Your task to perform on an android device: Search for pizza restaurants on Maps Image 0: 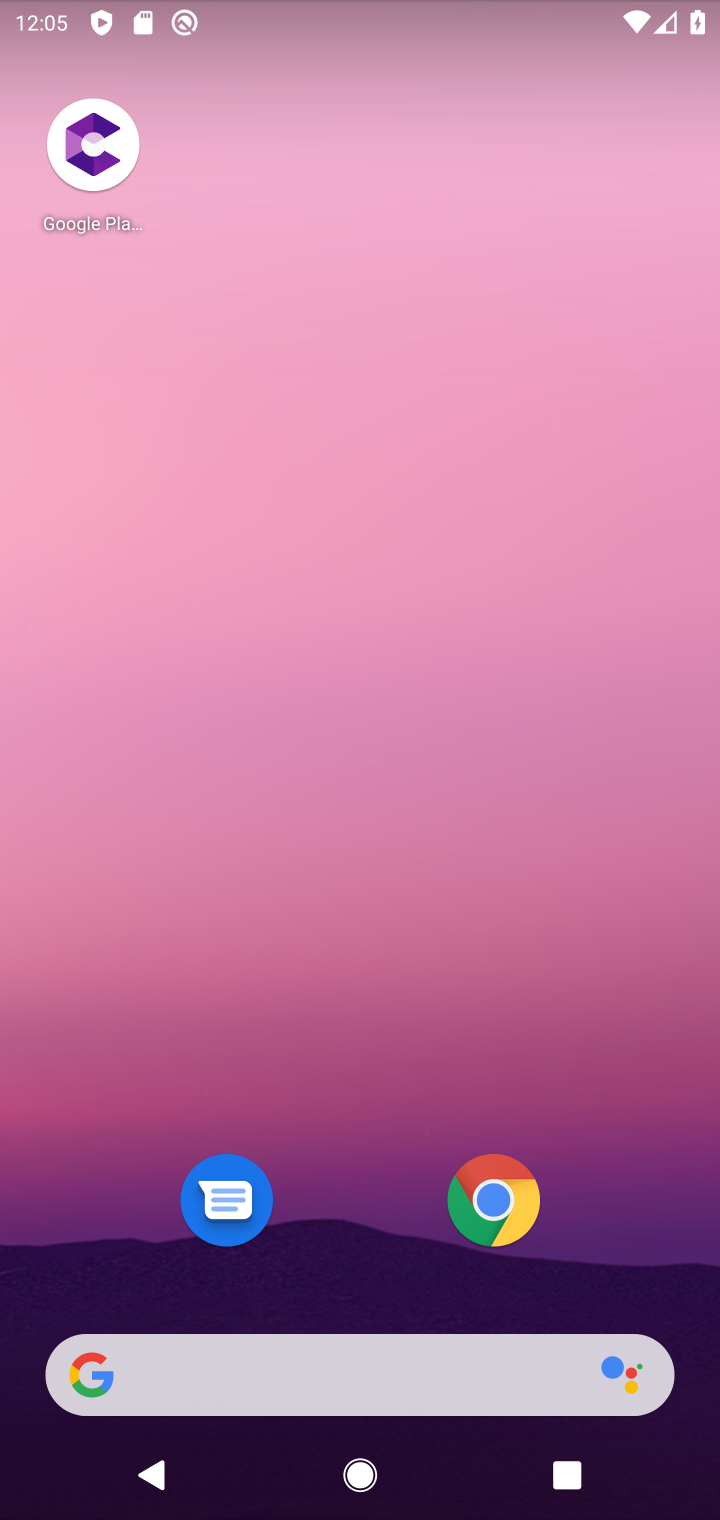
Step 0: drag from (351, 1250) to (340, 19)
Your task to perform on an android device: Search for pizza restaurants on Maps Image 1: 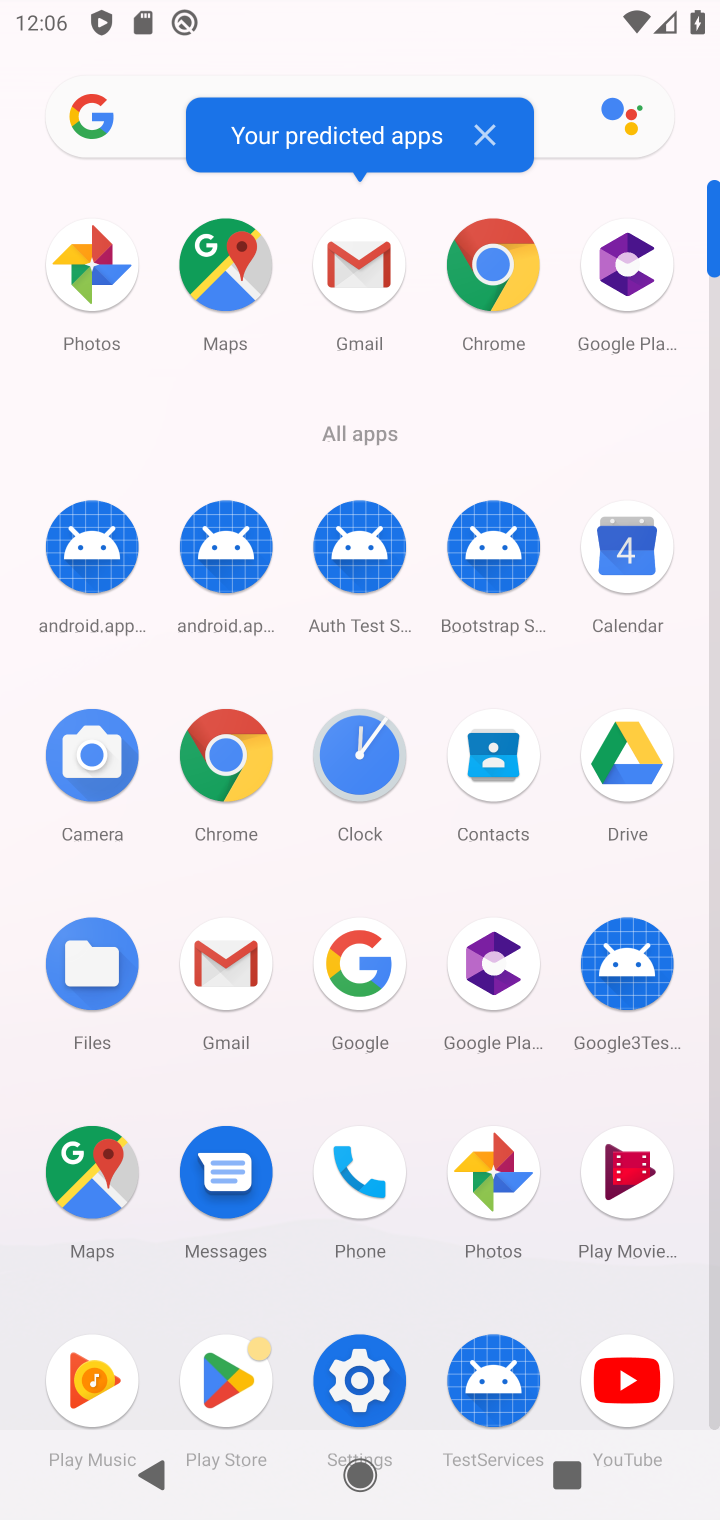
Step 1: drag from (417, 683) to (359, 0)
Your task to perform on an android device: Search for pizza restaurants on Maps Image 2: 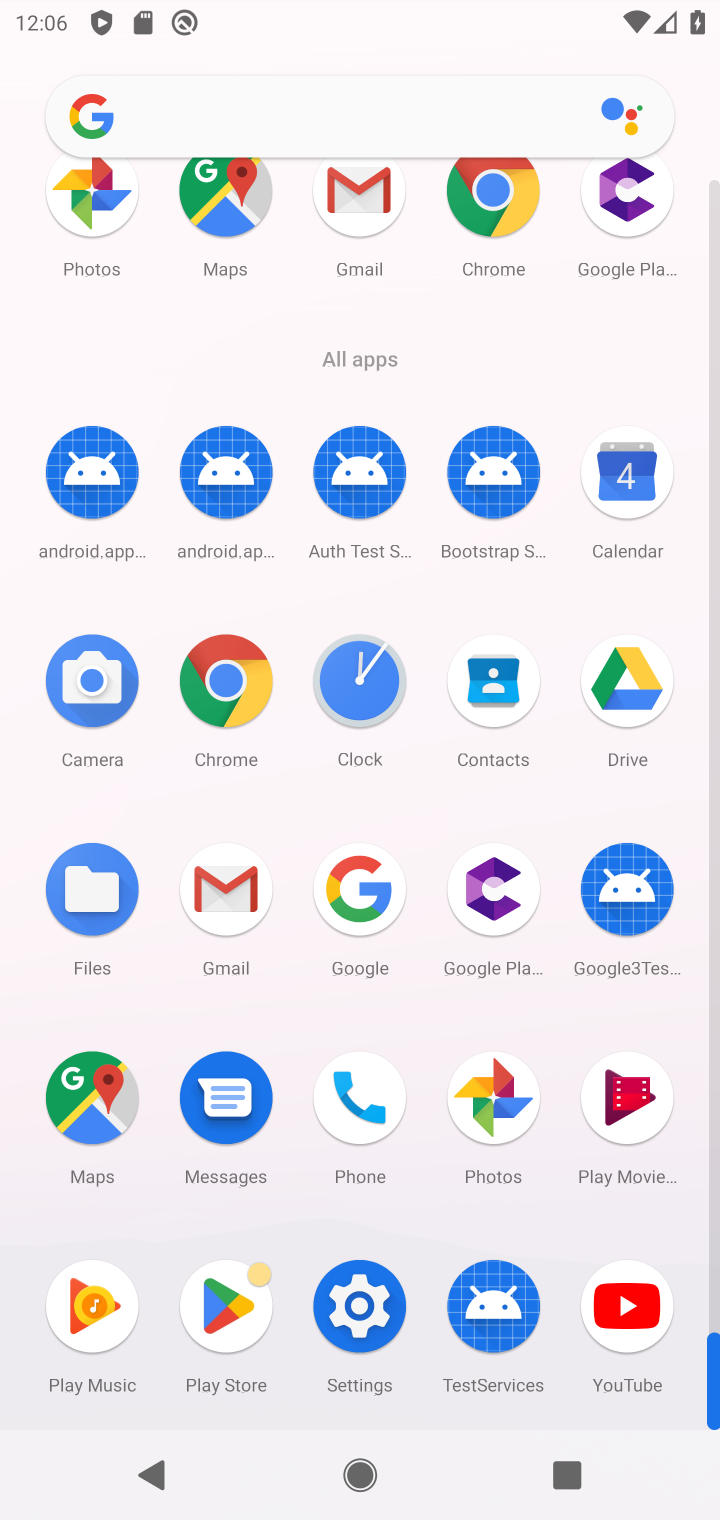
Step 2: click (76, 1086)
Your task to perform on an android device: Search for pizza restaurants on Maps Image 3: 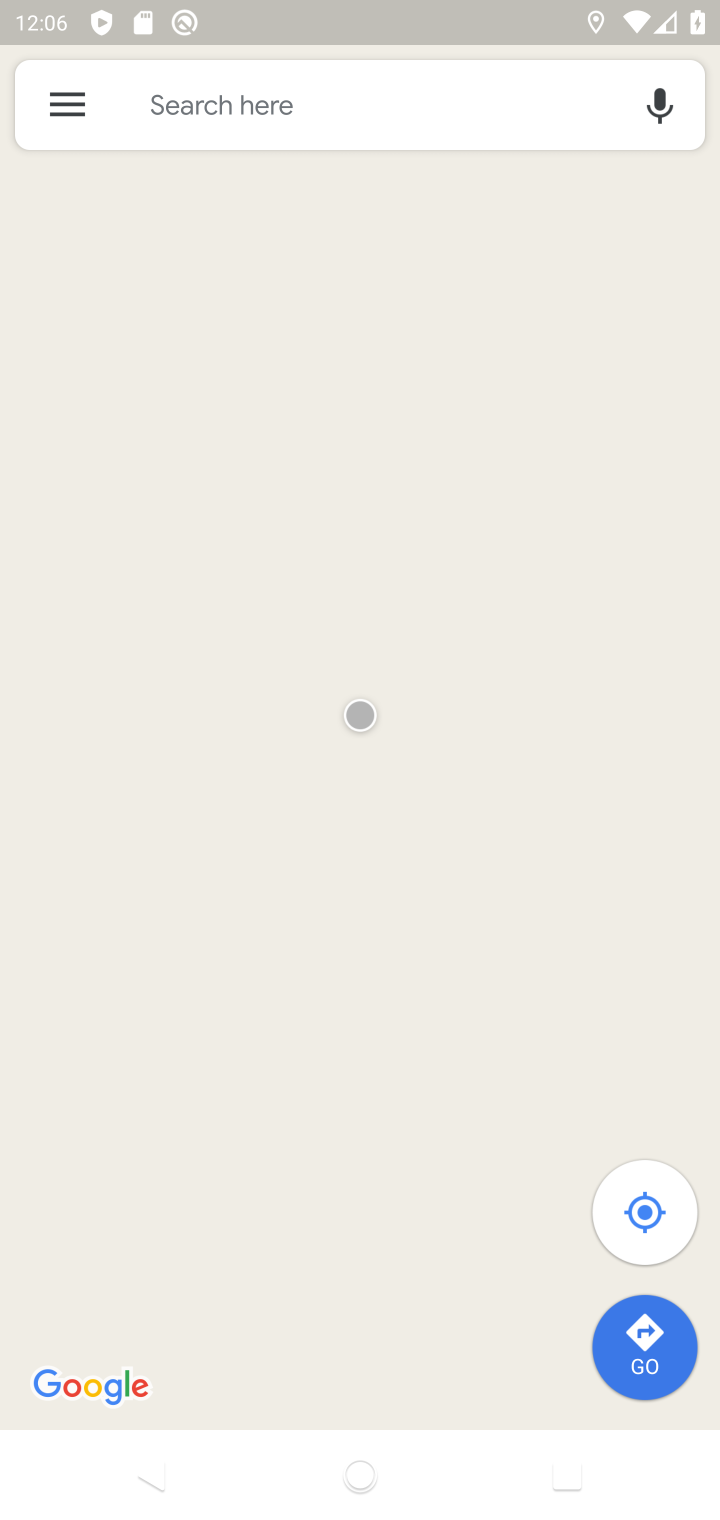
Step 3: click (304, 101)
Your task to perform on an android device: Search for pizza restaurants on Maps Image 4: 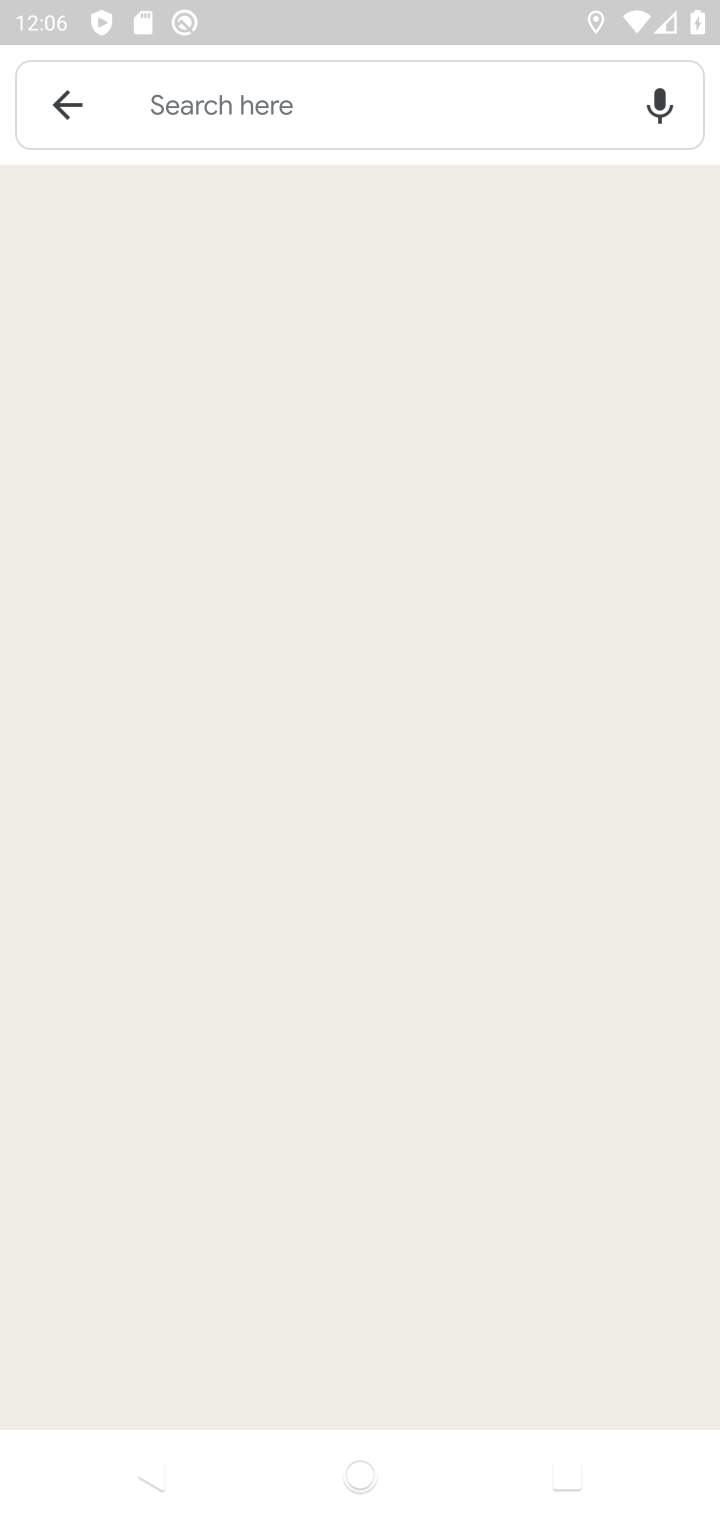
Step 4: click (289, 101)
Your task to perform on an android device: Search for pizza restaurants on Maps Image 5: 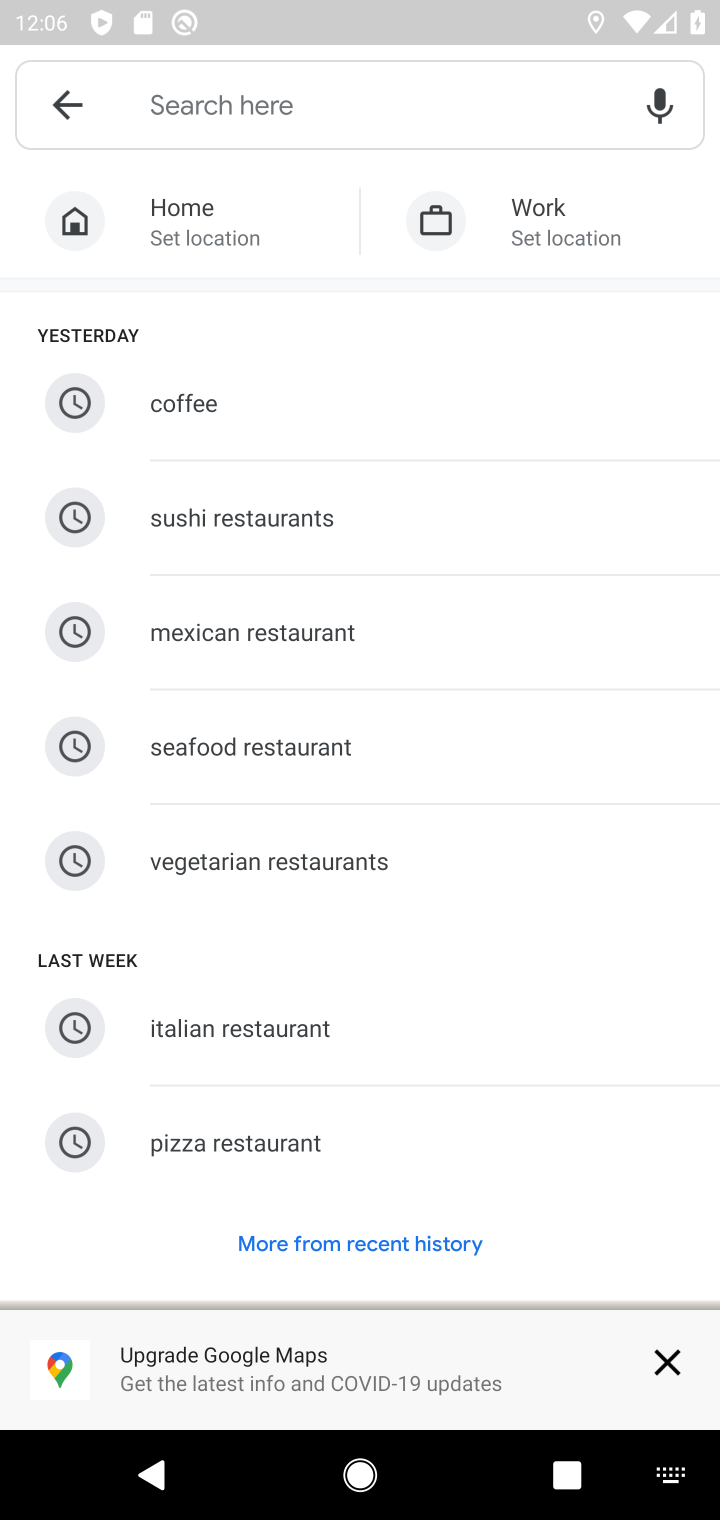
Step 5: type " pizza restaurants "
Your task to perform on an android device: Search for pizza restaurants on Maps Image 6: 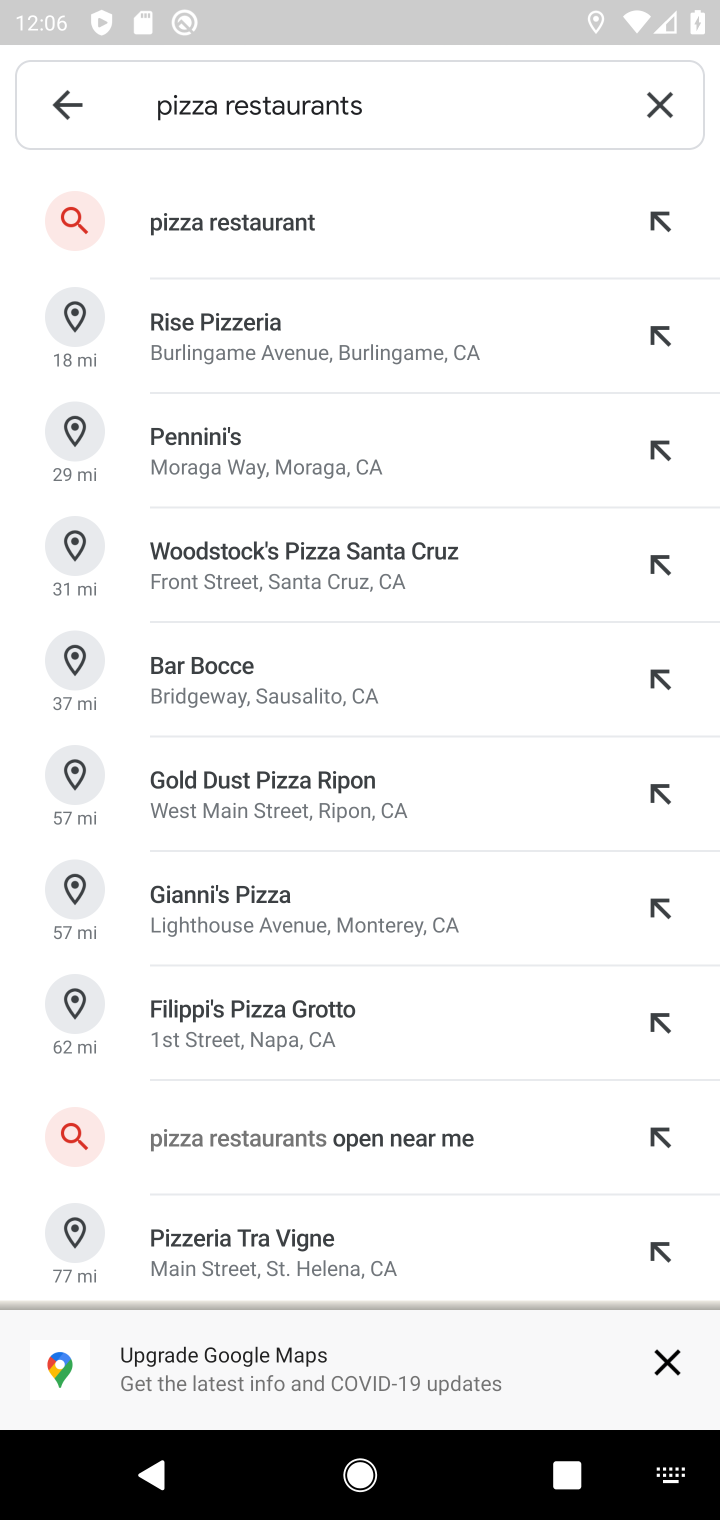
Step 6: click (209, 226)
Your task to perform on an android device: Search for pizza restaurants on Maps Image 7: 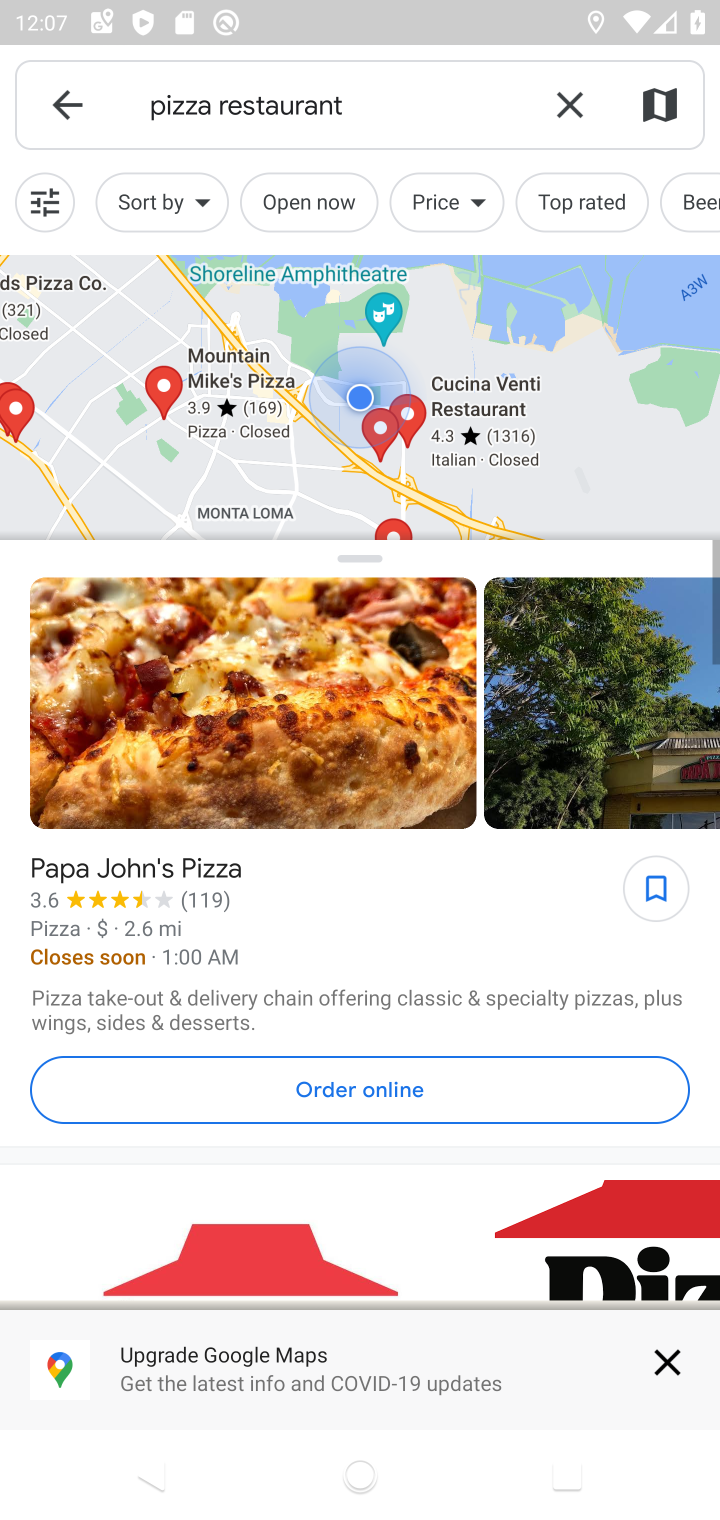
Step 7: task complete